Your task to perform on an android device: What's the latest video from GameSpot Trailers? Image 0: 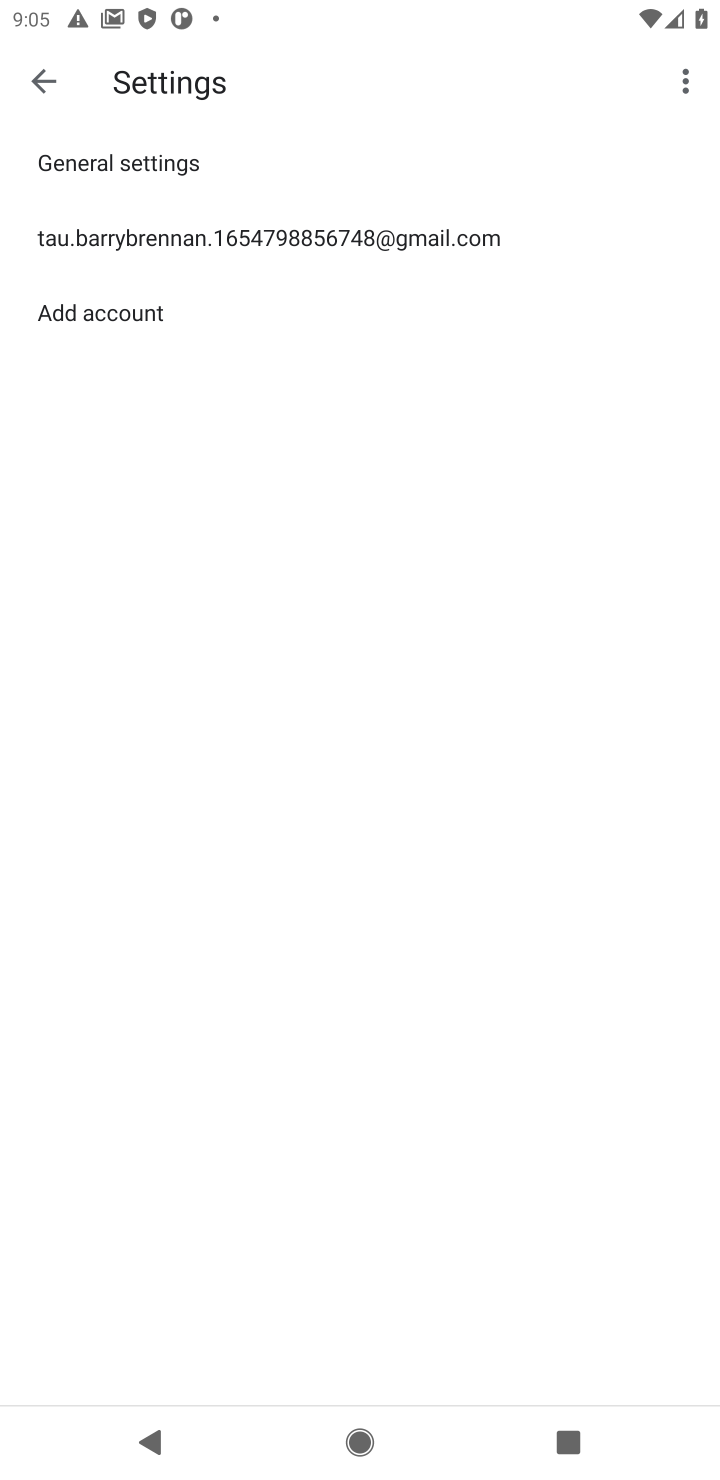
Step 0: press home button
Your task to perform on an android device: What's the latest video from GameSpot Trailers? Image 1: 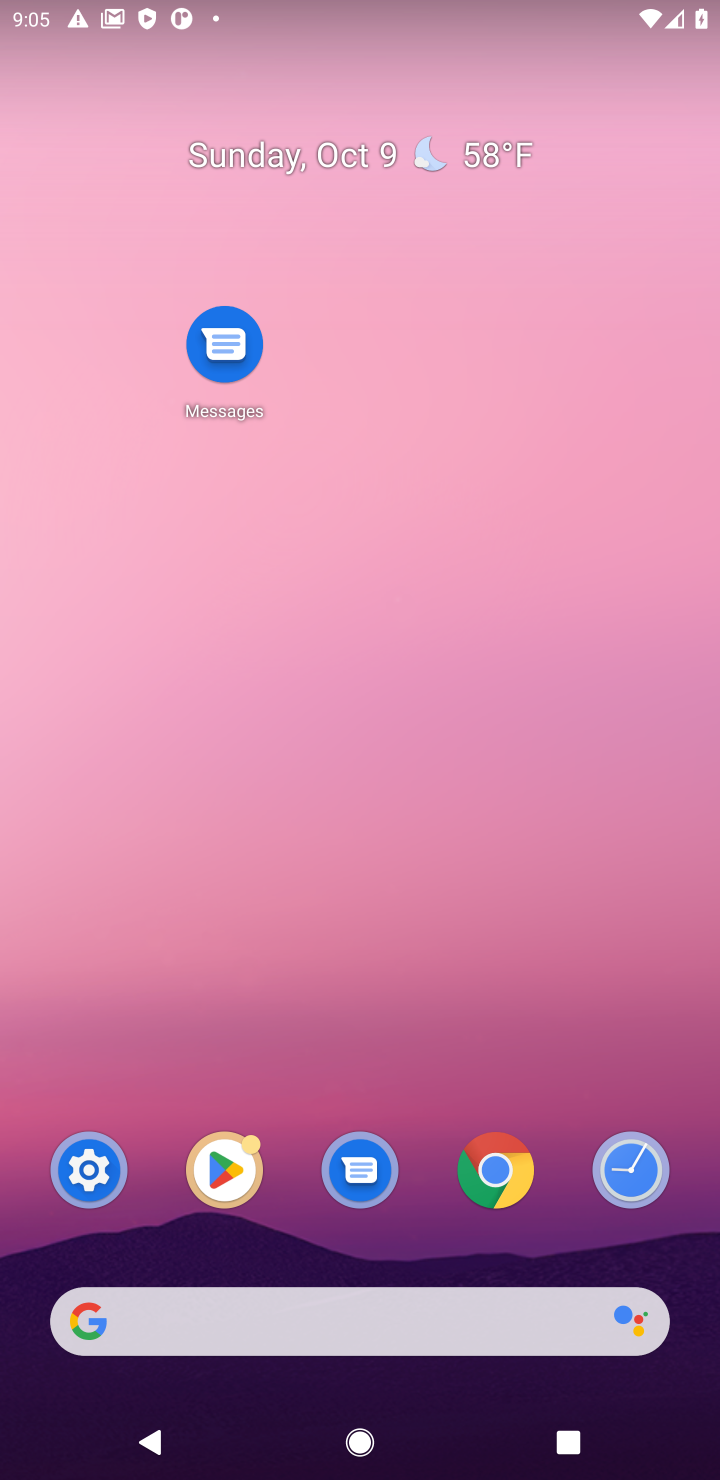
Step 1: click (391, 1320)
Your task to perform on an android device: What's the latest video from GameSpot Trailers? Image 2: 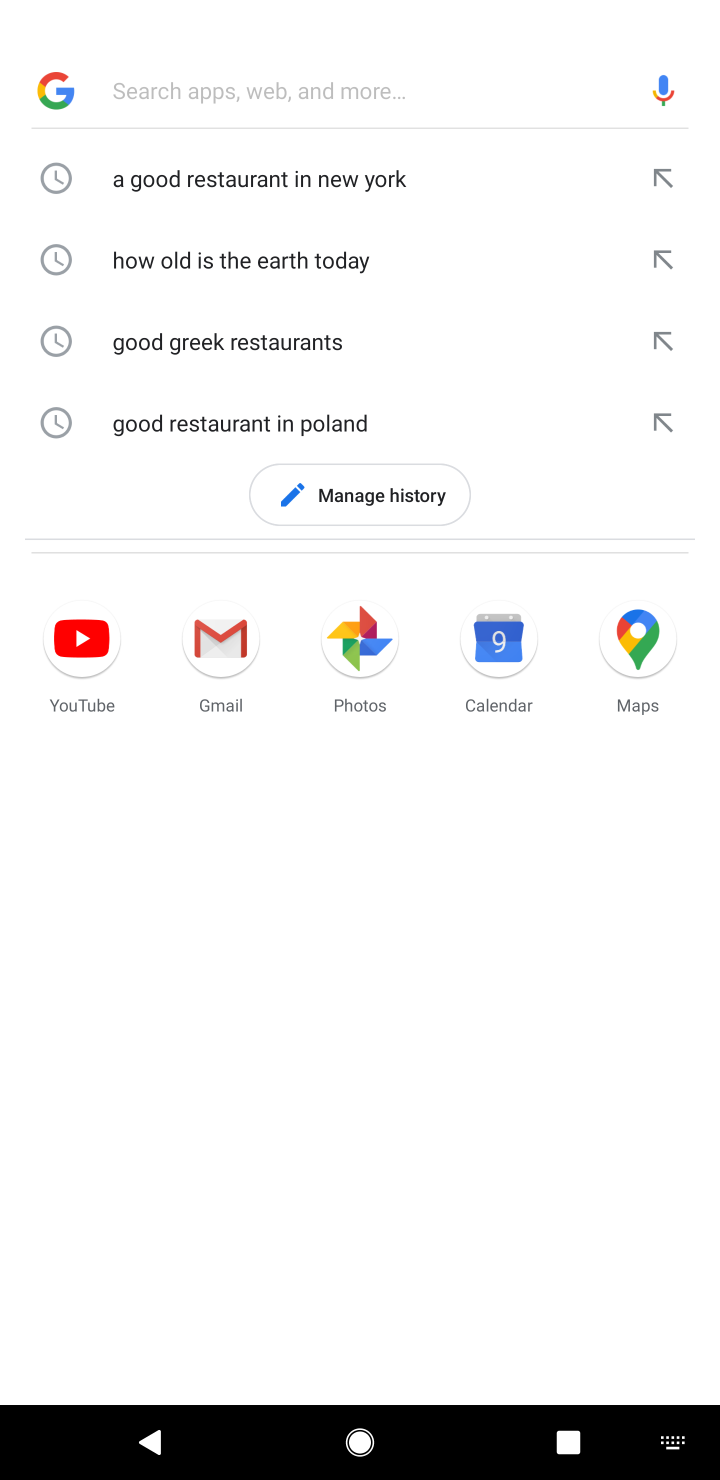
Step 2: type " the latest video from GameSpot Trailers"
Your task to perform on an android device: What's the latest video from GameSpot Trailers? Image 3: 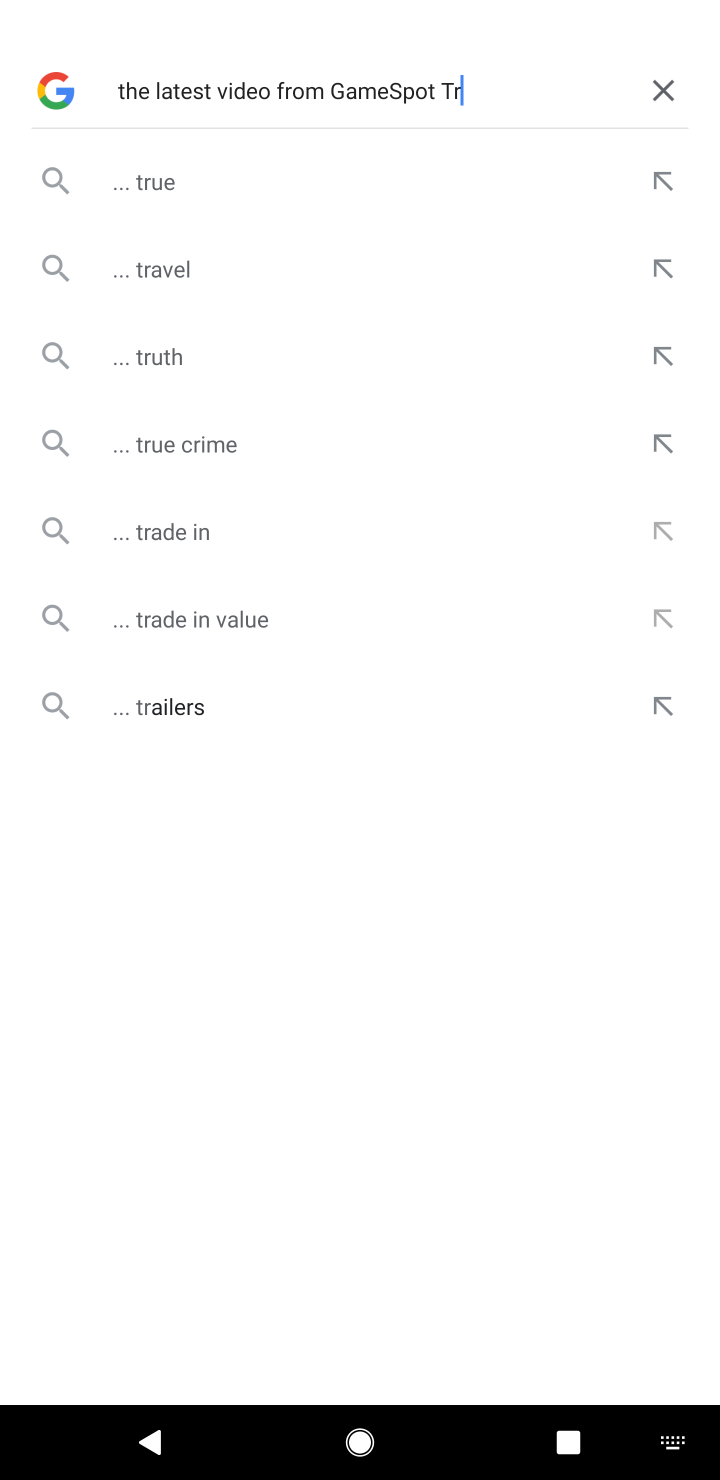
Step 3: click (192, 723)
Your task to perform on an android device: What's the latest video from GameSpot Trailers? Image 4: 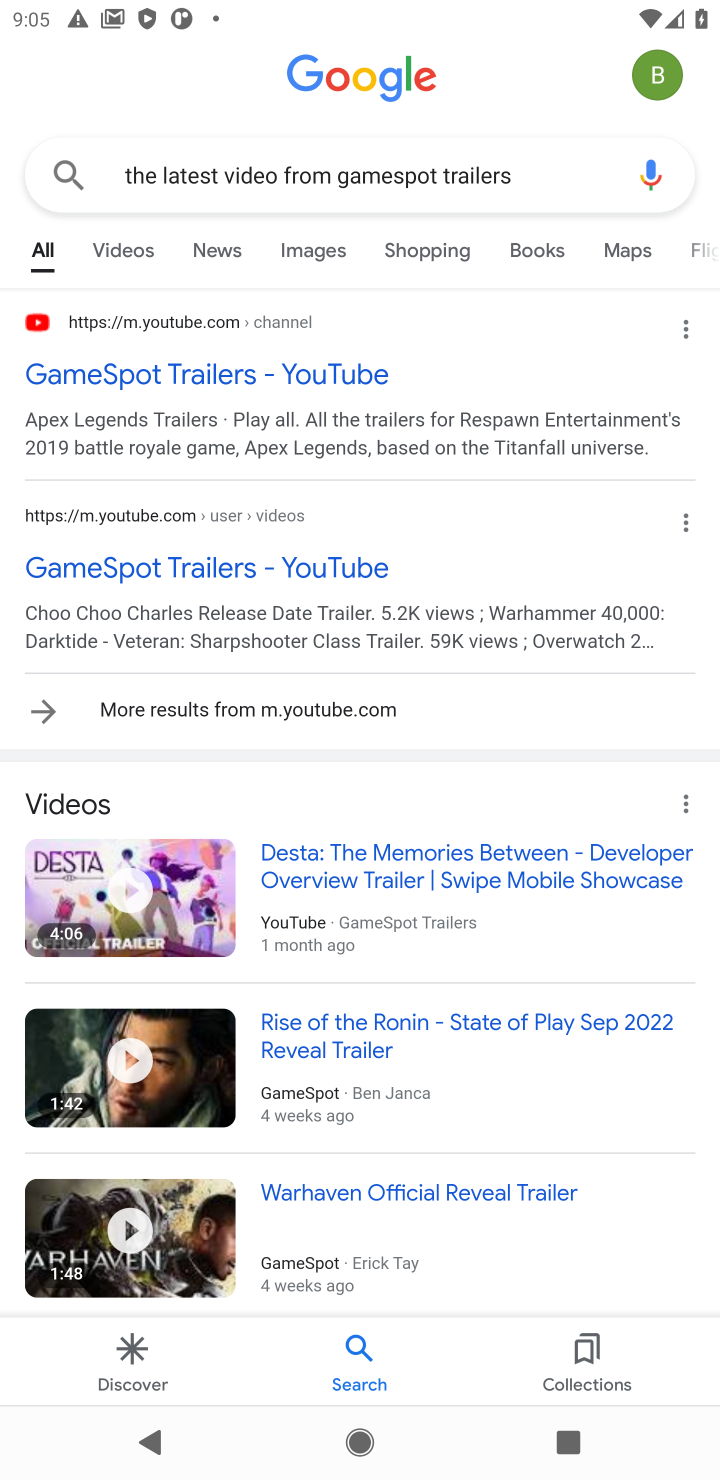
Step 4: task complete